Your task to perform on an android device: Open the map Image 0: 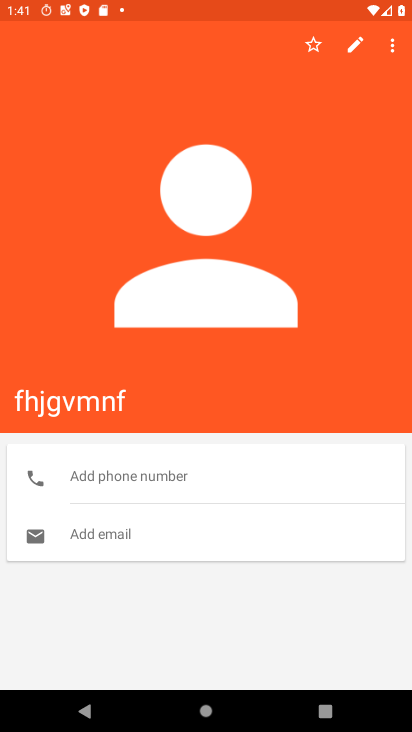
Step 0: press home button
Your task to perform on an android device: Open the map Image 1: 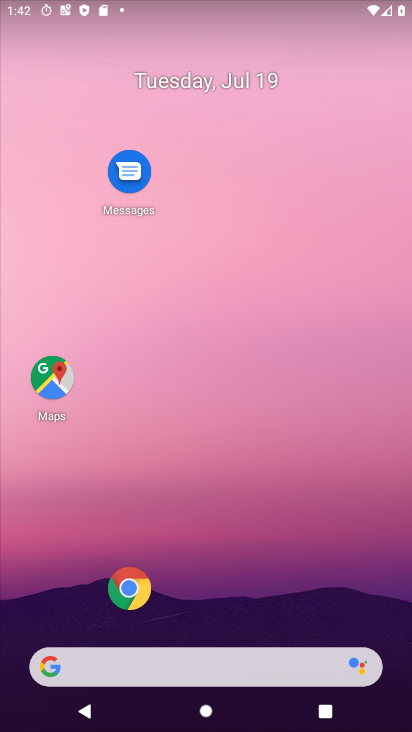
Step 1: click (34, 386)
Your task to perform on an android device: Open the map Image 2: 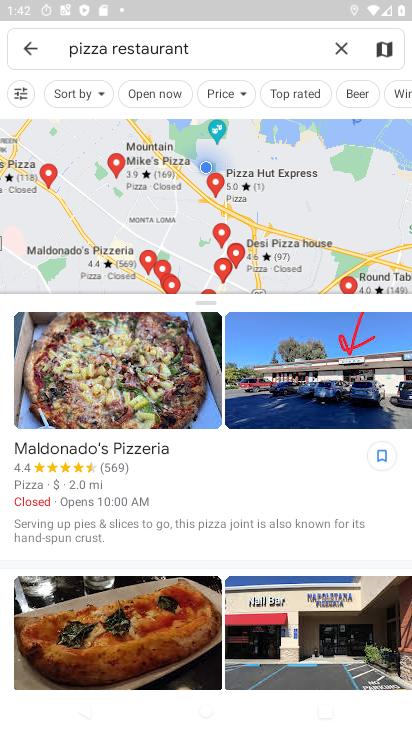
Step 2: click (20, 60)
Your task to perform on an android device: Open the map Image 3: 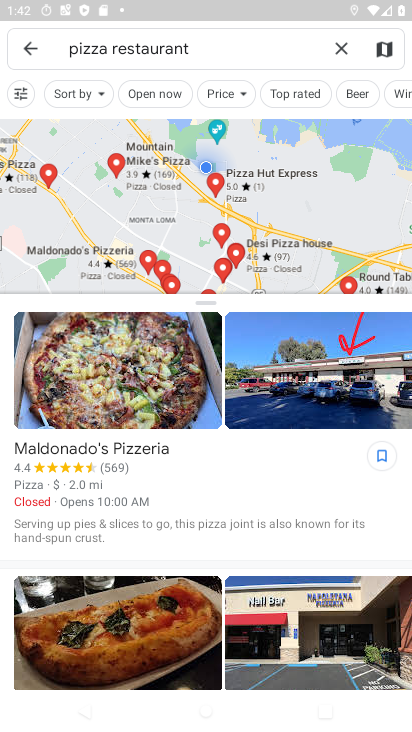
Step 3: click (27, 56)
Your task to perform on an android device: Open the map Image 4: 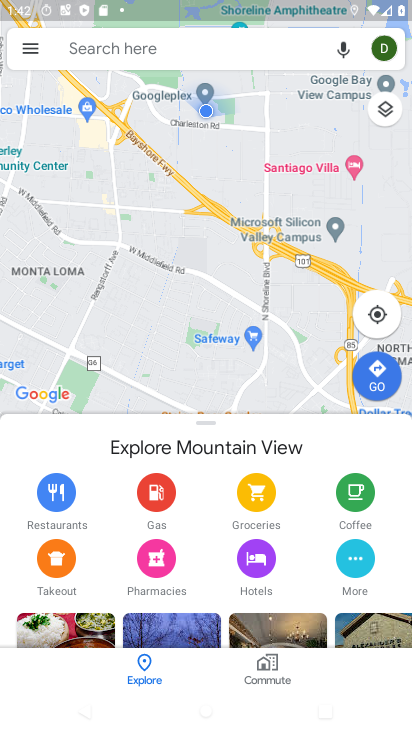
Step 4: task complete